Your task to perform on an android device: change your default location settings in chrome Image 0: 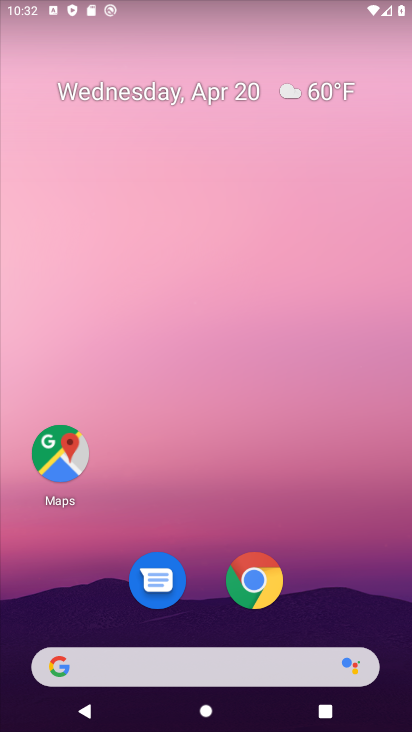
Step 0: click (258, 586)
Your task to perform on an android device: change your default location settings in chrome Image 1: 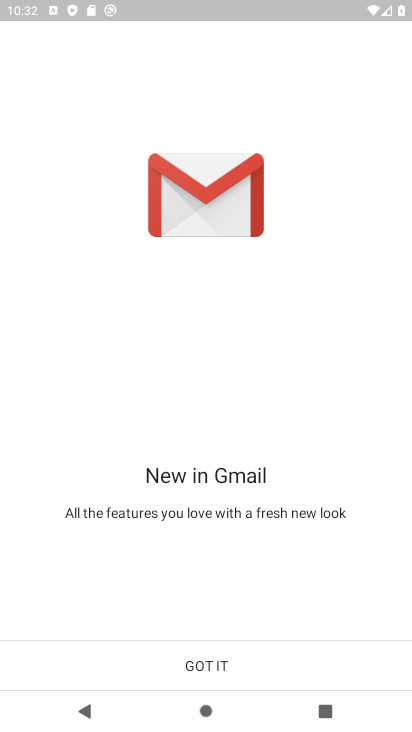
Step 1: press home button
Your task to perform on an android device: change your default location settings in chrome Image 2: 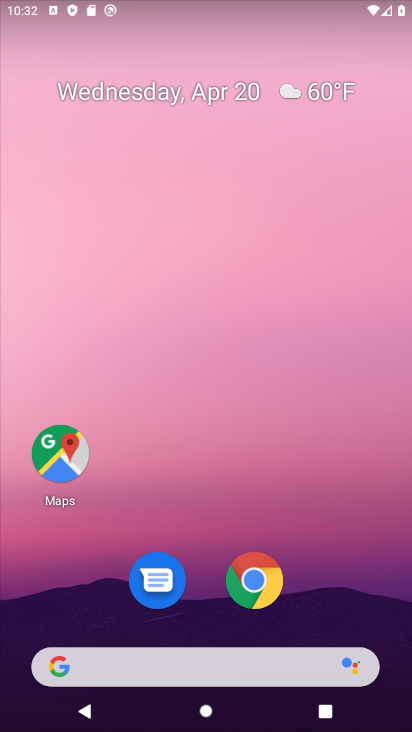
Step 2: click (259, 567)
Your task to perform on an android device: change your default location settings in chrome Image 3: 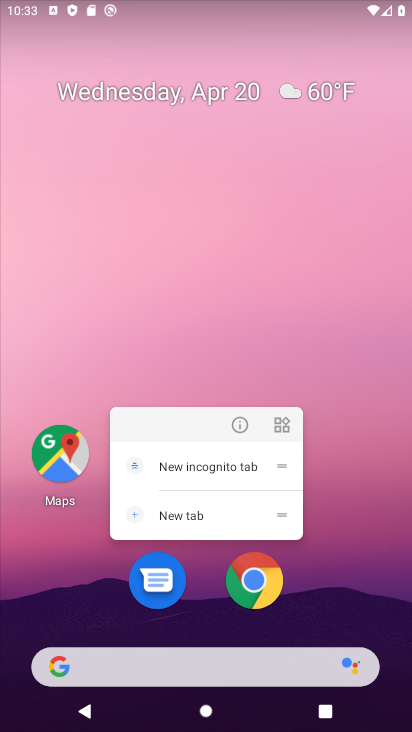
Step 3: click (256, 579)
Your task to perform on an android device: change your default location settings in chrome Image 4: 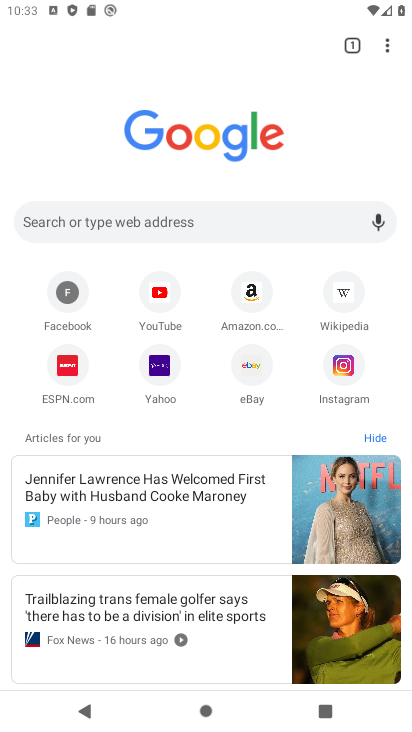
Step 4: drag from (387, 45) to (242, 432)
Your task to perform on an android device: change your default location settings in chrome Image 5: 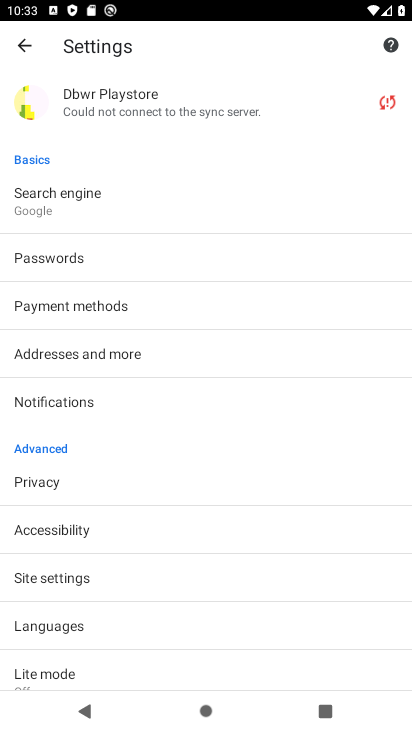
Step 5: click (103, 581)
Your task to perform on an android device: change your default location settings in chrome Image 6: 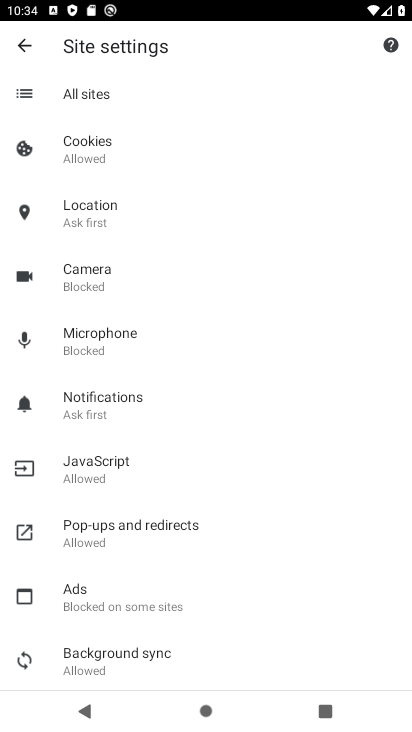
Step 6: click (127, 209)
Your task to perform on an android device: change your default location settings in chrome Image 7: 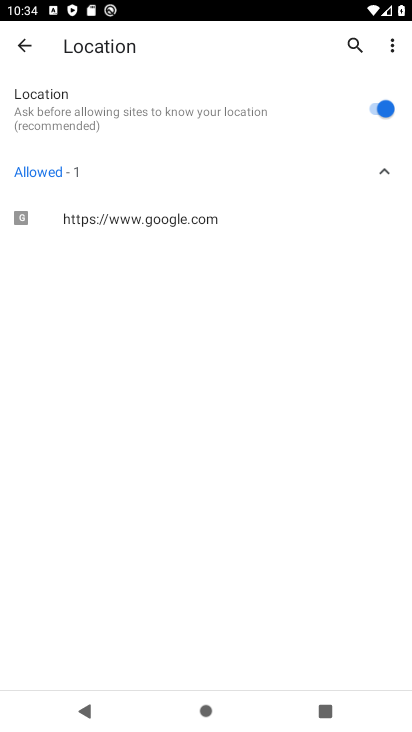
Step 7: click (376, 106)
Your task to perform on an android device: change your default location settings in chrome Image 8: 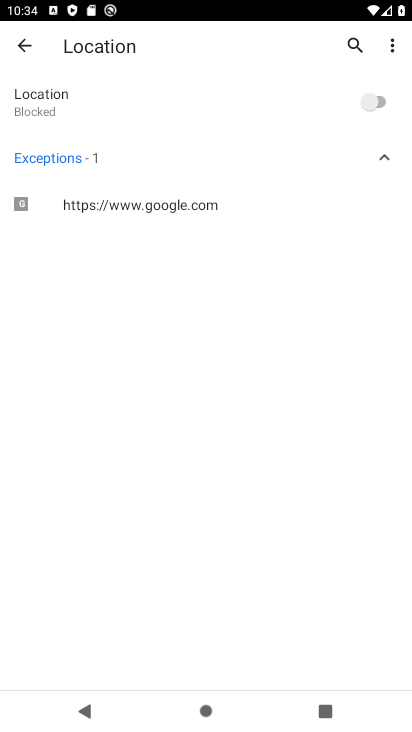
Step 8: task complete